Your task to perform on an android device: Is it going to rain tomorrow? Image 0: 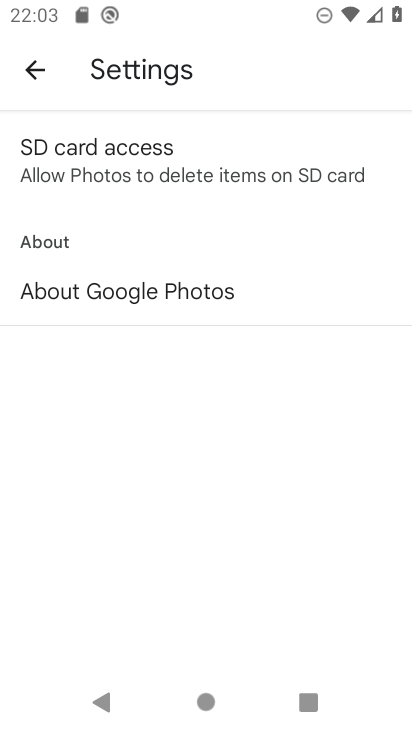
Step 0: press home button
Your task to perform on an android device: Is it going to rain tomorrow? Image 1: 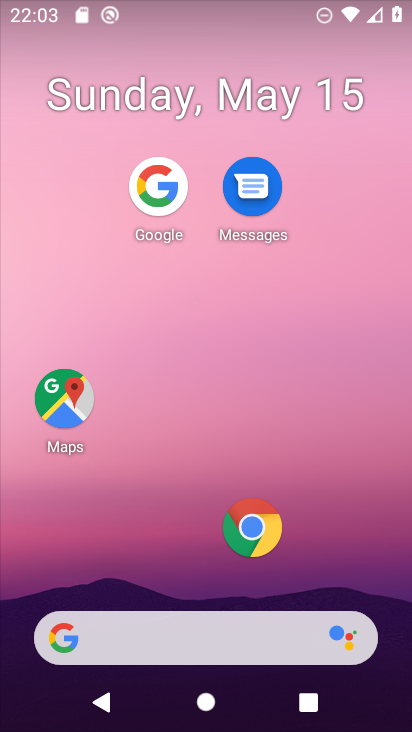
Step 1: click (75, 638)
Your task to perform on an android device: Is it going to rain tomorrow? Image 2: 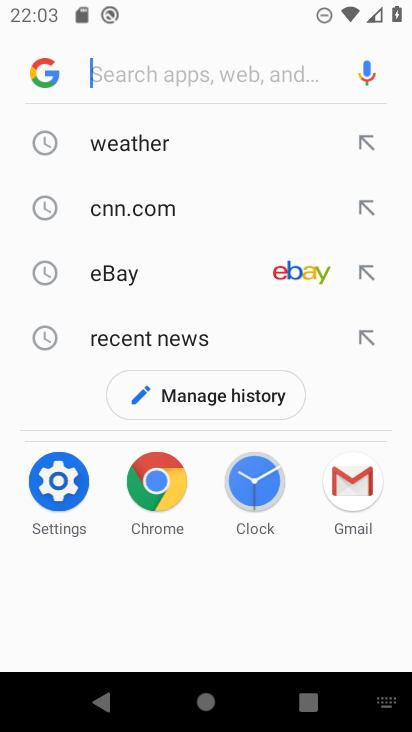
Step 2: click (145, 149)
Your task to perform on an android device: Is it going to rain tomorrow? Image 3: 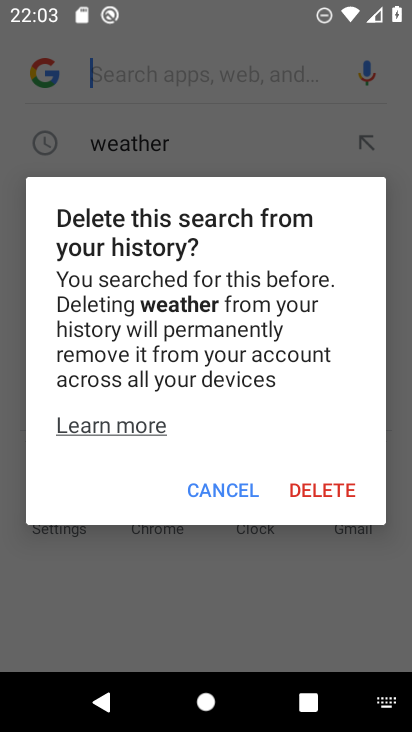
Step 3: click (217, 492)
Your task to perform on an android device: Is it going to rain tomorrow? Image 4: 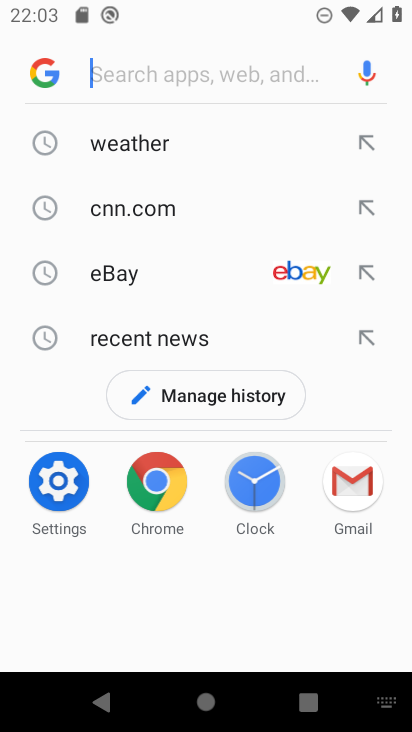
Step 4: click (129, 145)
Your task to perform on an android device: Is it going to rain tomorrow? Image 5: 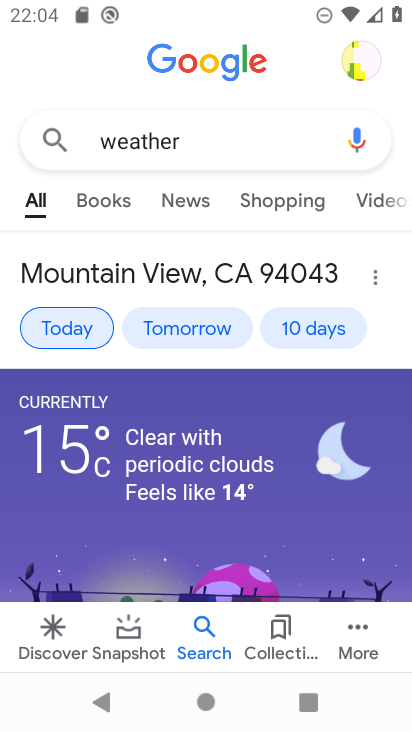
Step 5: click (197, 325)
Your task to perform on an android device: Is it going to rain tomorrow? Image 6: 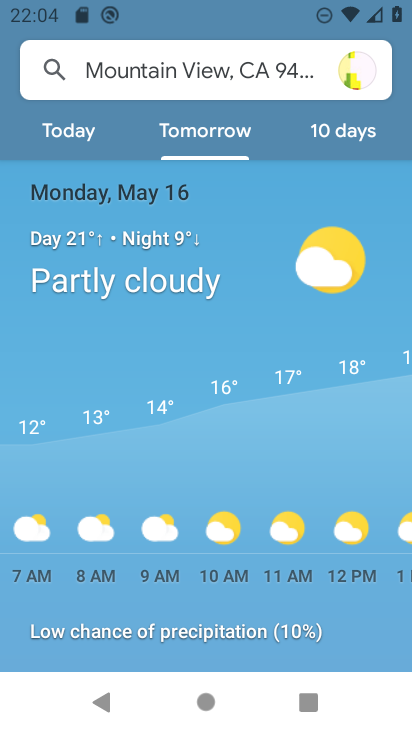
Step 6: task complete